Your task to perform on an android device: Open Maps and search for coffee Image 0: 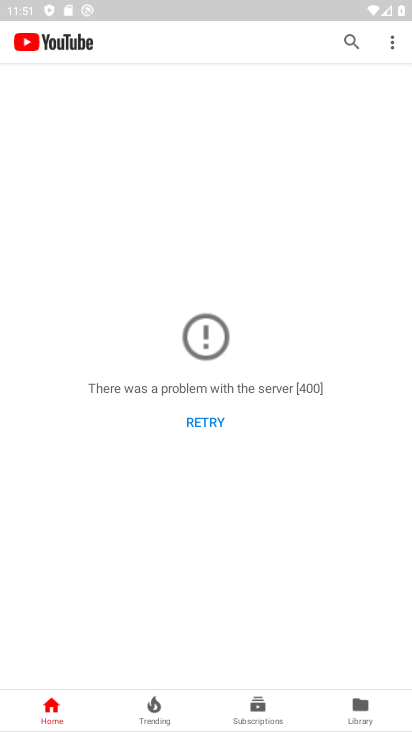
Step 0: press home button
Your task to perform on an android device: Open Maps and search for coffee Image 1: 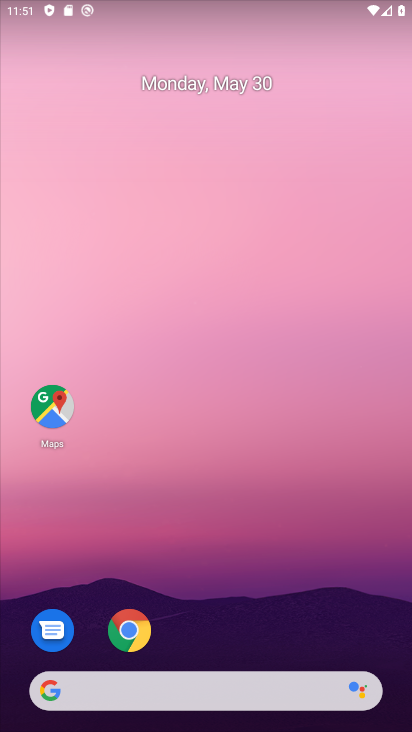
Step 1: click (57, 406)
Your task to perform on an android device: Open Maps and search for coffee Image 2: 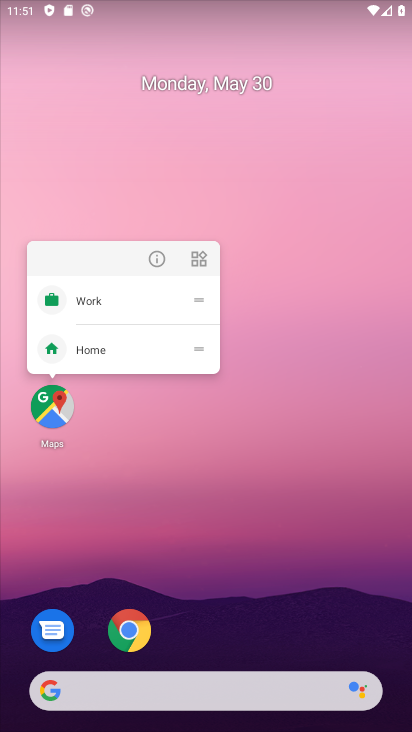
Step 2: click (57, 405)
Your task to perform on an android device: Open Maps and search for coffee Image 3: 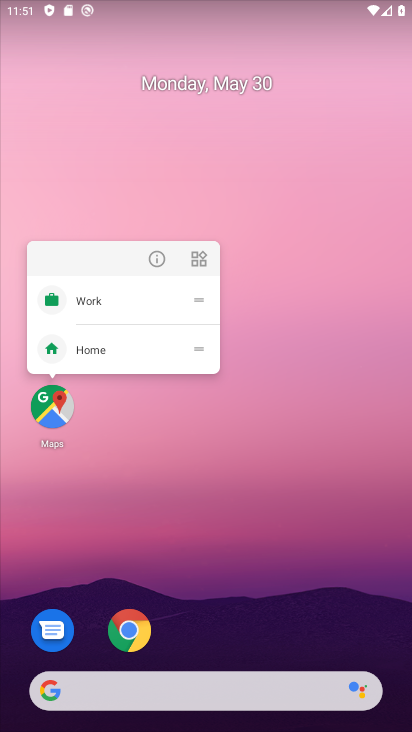
Step 3: click (49, 414)
Your task to perform on an android device: Open Maps and search for coffee Image 4: 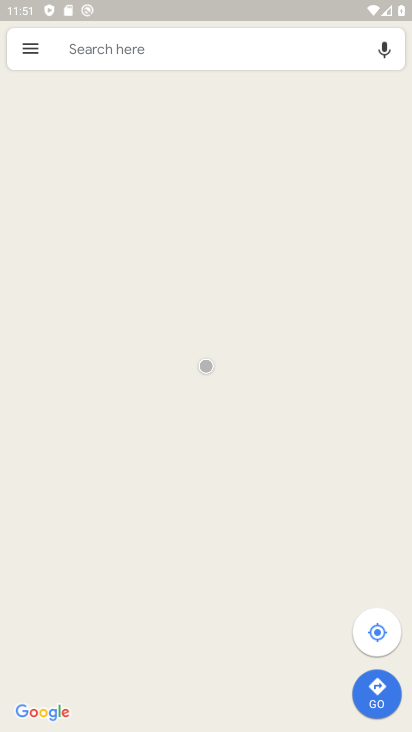
Step 4: click (195, 50)
Your task to perform on an android device: Open Maps and search for coffee Image 5: 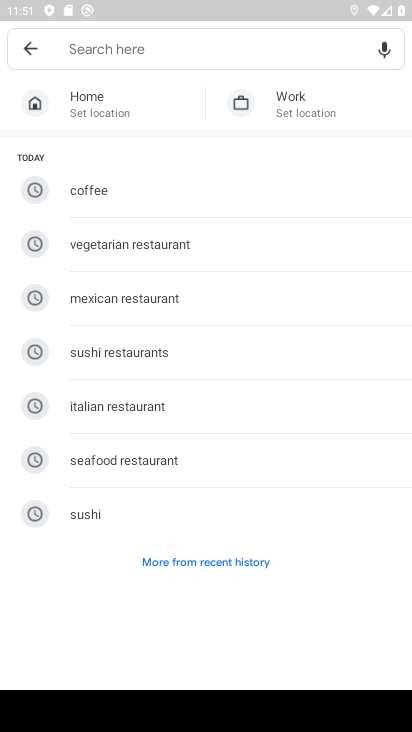
Step 5: type "coffee"
Your task to perform on an android device: Open Maps and search for coffee Image 6: 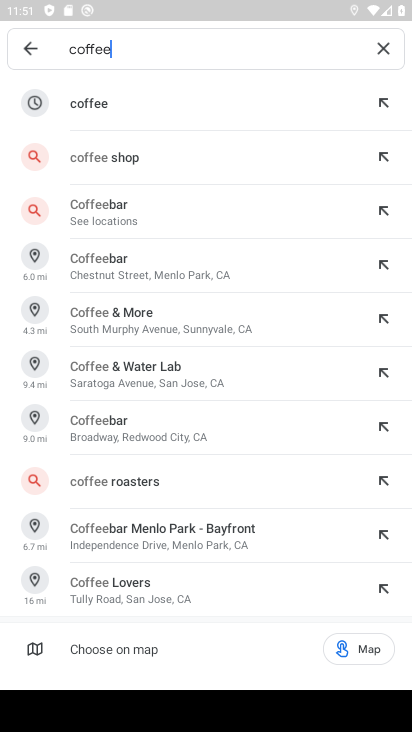
Step 6: click (124, 109)
Your task to perform on an android device: Open Maps and search for coffee Image 7: 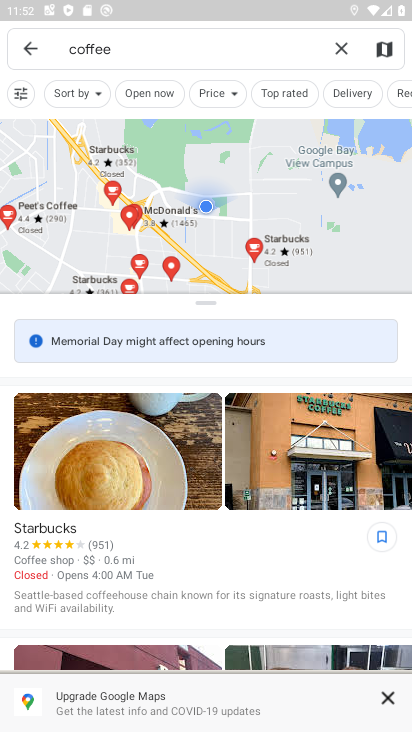
Step 7: task complete